Your task to perform on an android device: find snoozed emails in the gmail app Image 0: 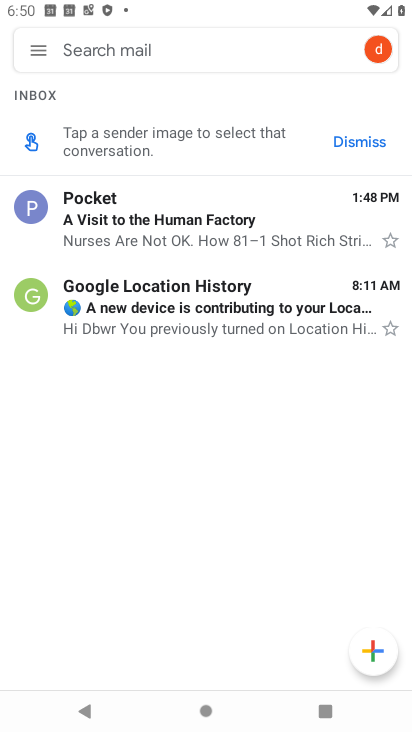
Step 0: press home button
Your task to perform on an android device: find snoozed emails in the gmail app Image 1: 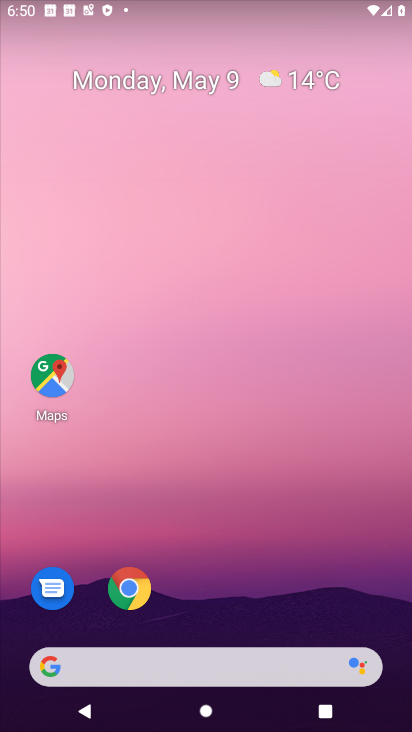
Step 1: drag from (339, 616) to (228, 129)
Your task to perform on an android device: find snoozed emails in the gmail app Image 2: 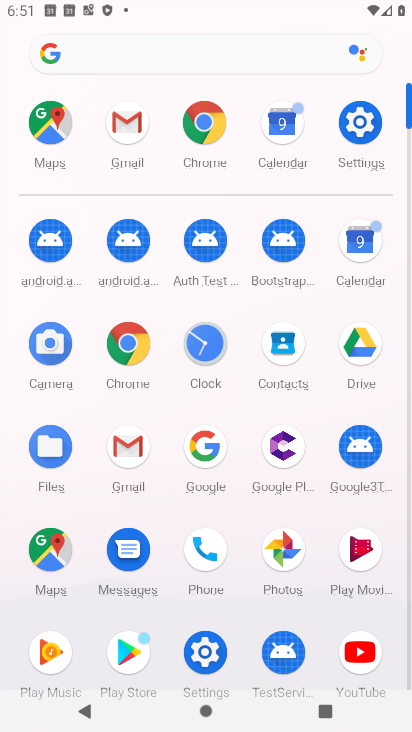
Step 2: click (119, 450)
Your task to perform on an android device: find snoozed emails in the gmail app Image 3: 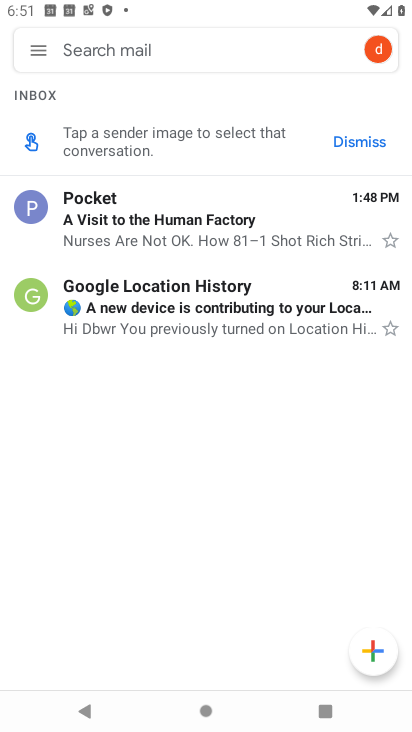
Step 3: click (35, 48)
Your task to perform on an android device: find snoozed emails in the gmail app Image 4: 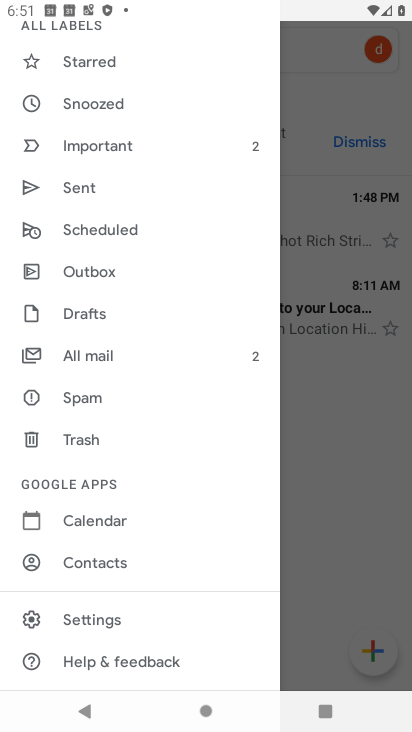
Step 4: click (77, 111)
Your task to perform on an android device: find snoozed emails in the gmail app Image 5: 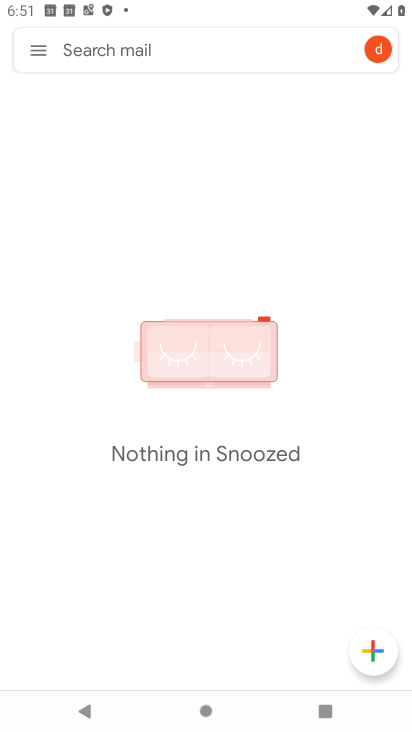
Step 5: task complete